Your task to perform on an android device: move an email to a new category in the gmail app Image 0: 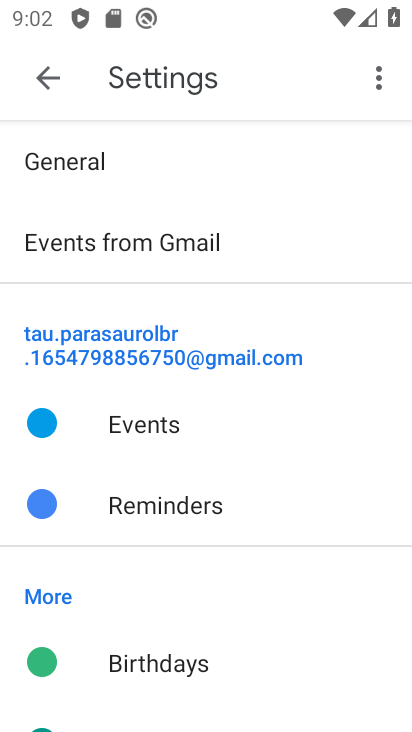
Step 0: press home button
Your task to perform on an android device: move an email to a new category in the gmail app Image 1: 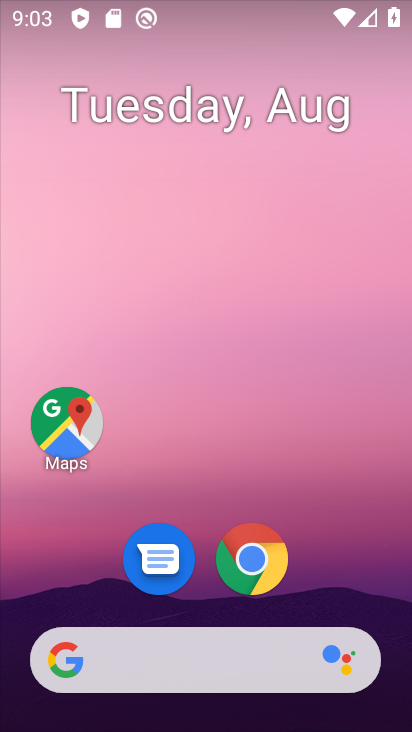
Step 1: drag from (349, 586) to (318, 102)
Your task to perform on an android device: move an email to a new category in the gmail app Image 2: 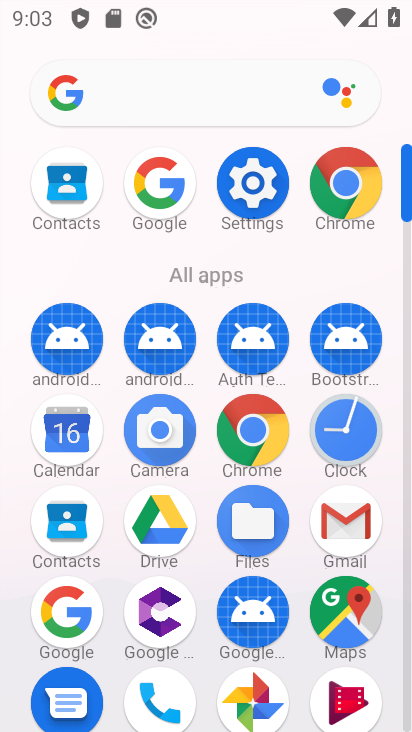
Step 2: click (349, 519)
Your task to perform on an android device: move an email to a new category in the gmail app Image 3: 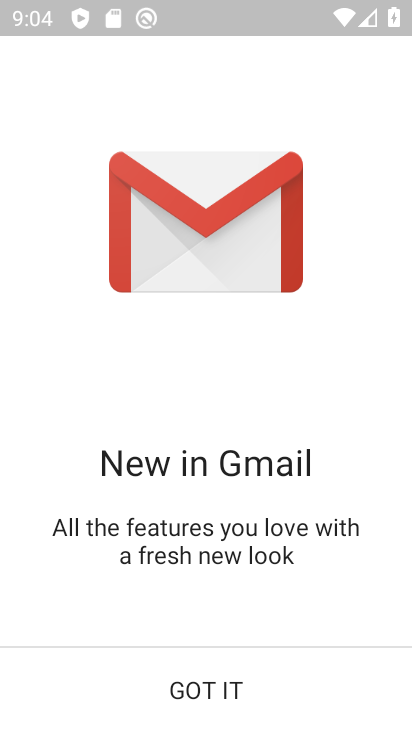
Step 3: click (224, 676)
Your task to perform on an android device: move an email to a new category in the gmail app Image 4: 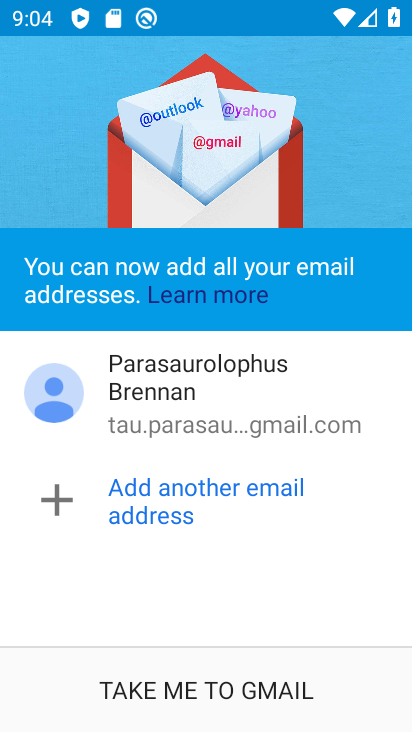
Step 4: click (248, 697)
Your task to perform on an android device: move an email to a new category in the gmail app Image 5: 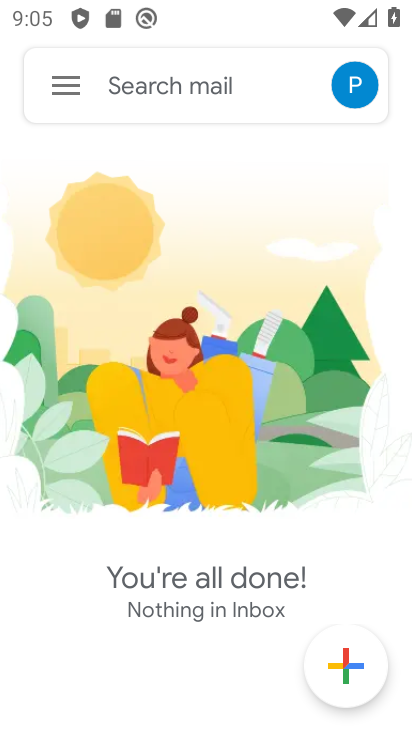
Step 5: task complete